Your task to perform on an android device: turn pop-ups on in chrome Image 0: 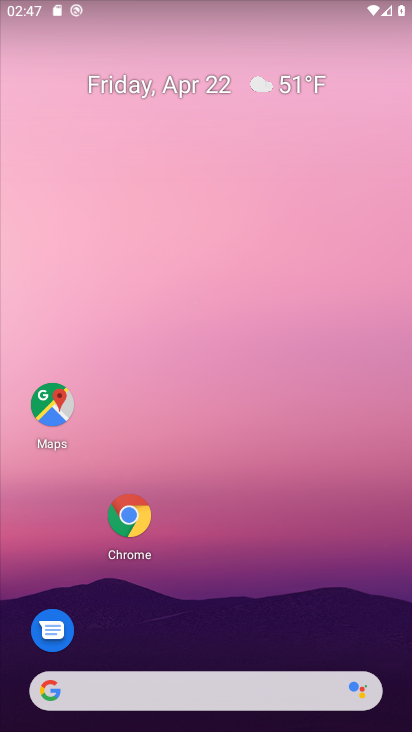
Step 0: click (130, 530)
Your task to perform on an android device: turn pop-ups on in chrome Image 1: 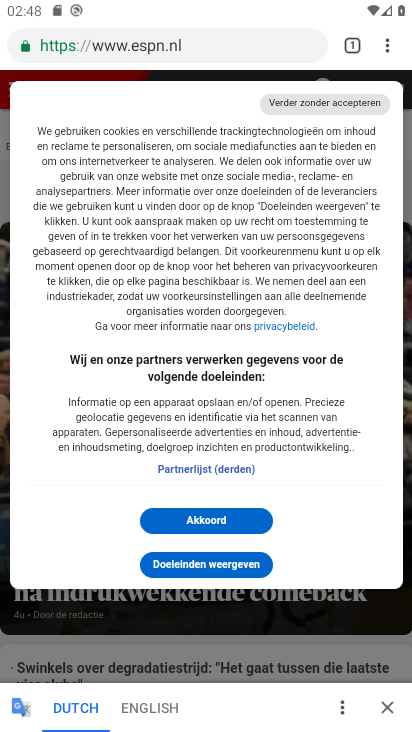
Step 1: press home button
Your task to perform on an android device: turn pop-ups on in chrome Image 2: 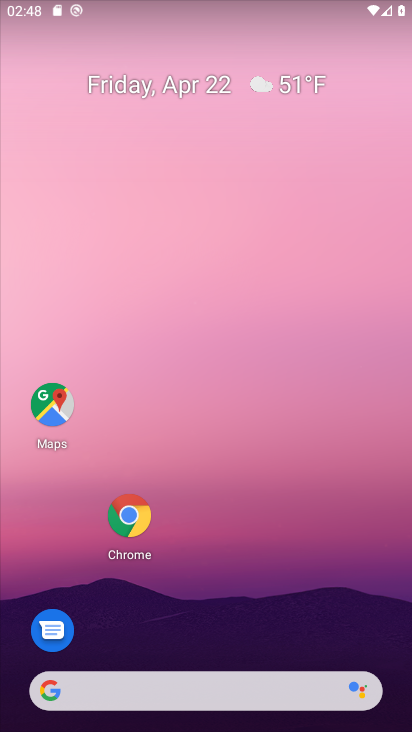
Step 2: click (121, 519)
Your task to perform on an android device: turn pop-ups on in chrome Image 3: 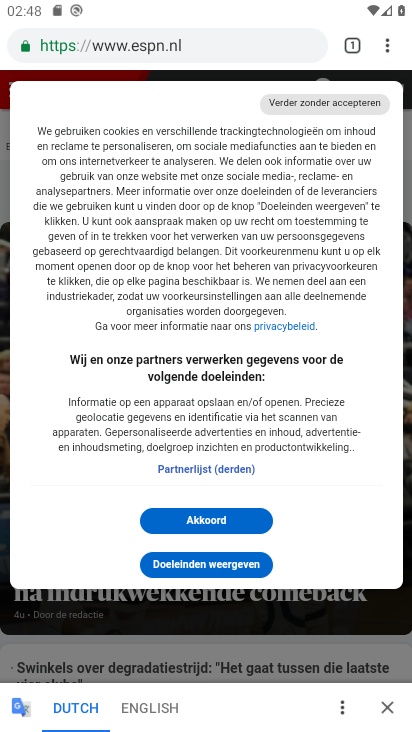
Step 3: press back button
Your task to perform on an android device: turn pop-ups on in chrome Image 4: 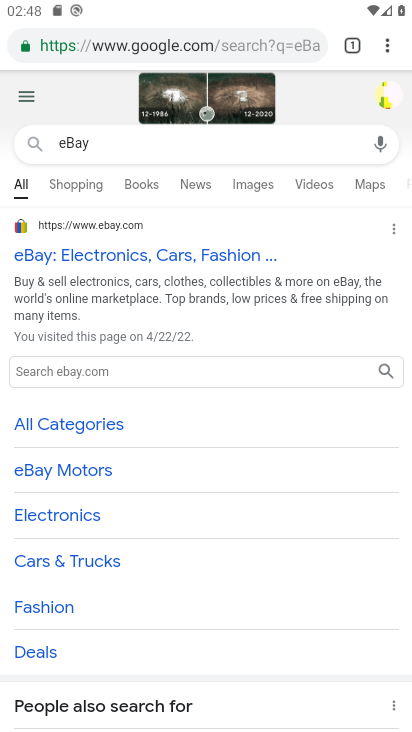
Step 4: click (386, 41)
Your task to perform on an android device: turn pop-ups on in chrome Image 5: 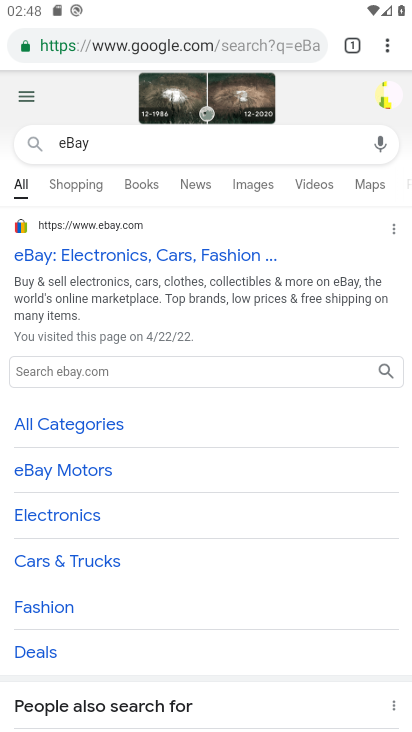
Step 5: click (385, 36)
Your task to perform on an android device: turn pop-ups on in chrome Image 6: 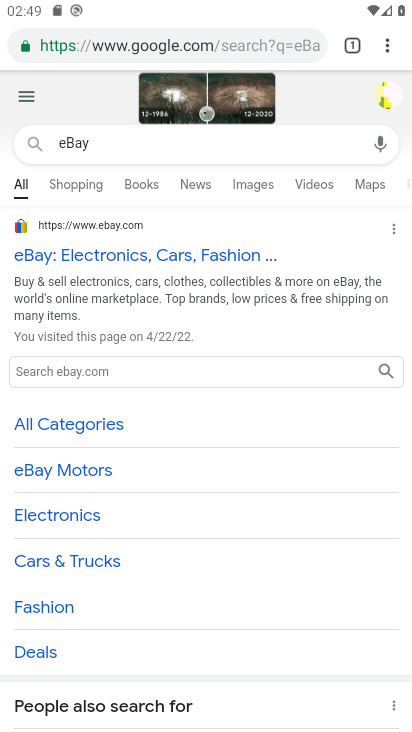
Step 6: click (385, 47)
Your task to perform on an android device: turn pop-ups on in chrome Image 7: 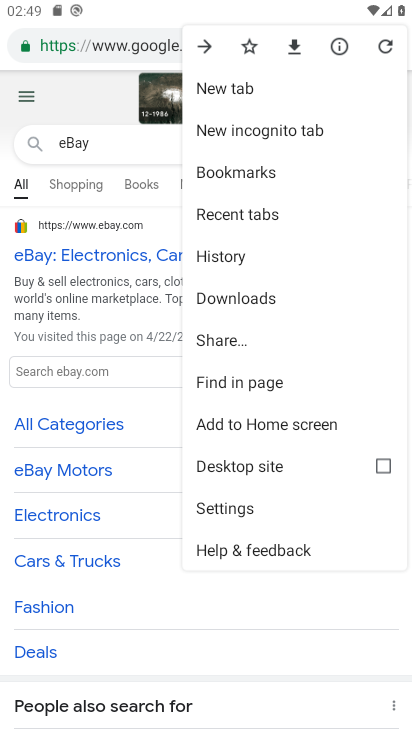
Step 7: click (224, 503)
Your task to perform on an android device: turn pop-ups on in chrome Image 8: 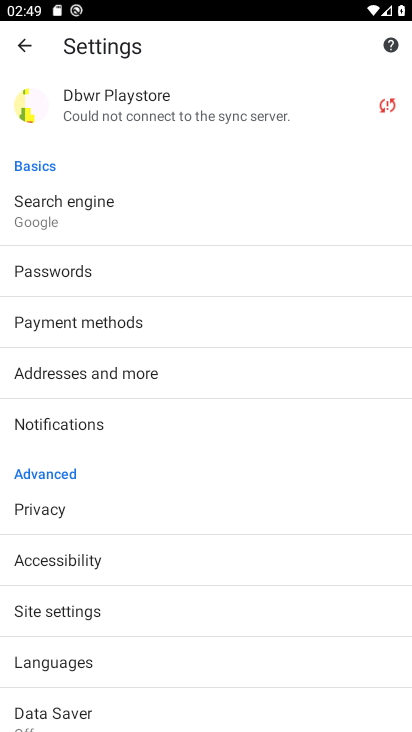
Step 8: click (48, 605)
Your task to perform on an android device: turn pop-ups on in chrome Image 9: 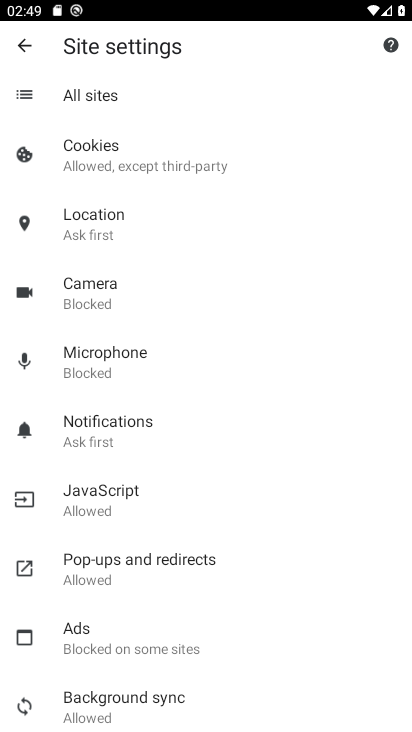
Step 9: click (80, 560)
Your task to perform on an android device: turn pop-ups on in chrome Image 10: 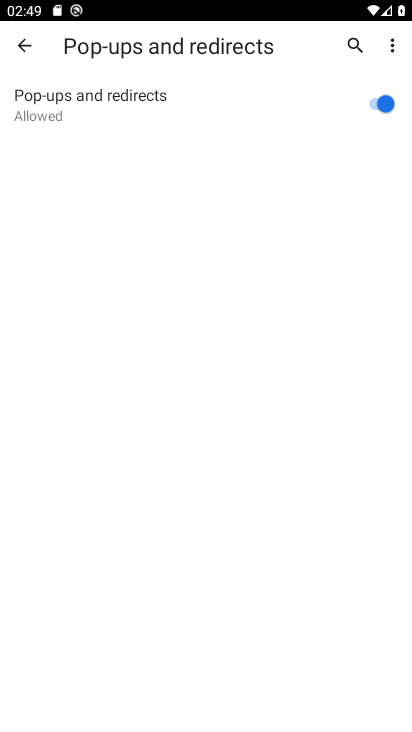
Step 10: task complete